Your task to perform on an android device: Open settings Image 0: 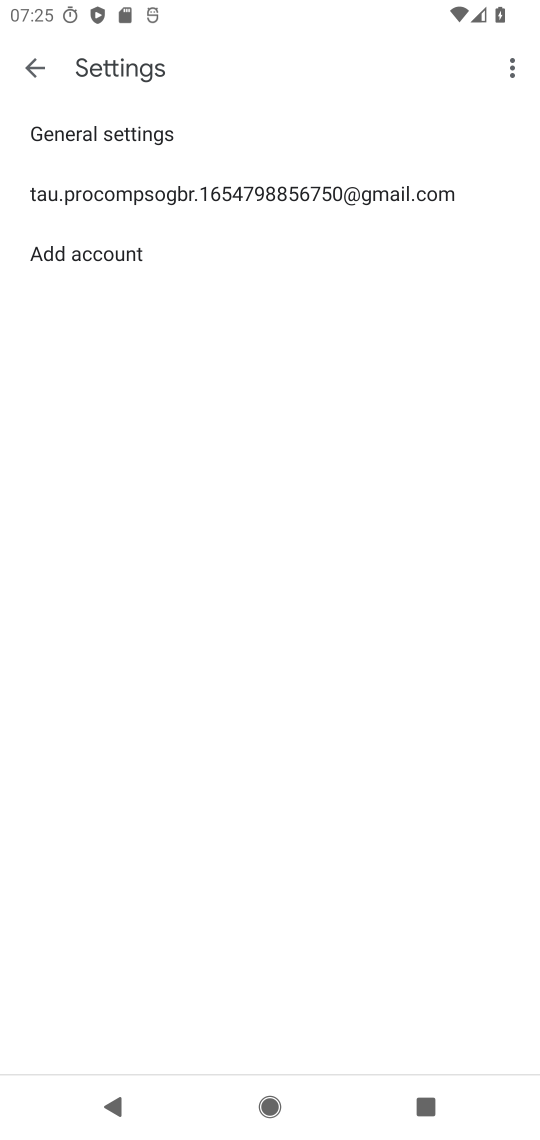
Step 0: press home button
Your task to perform on an android device: Open settings Image 1: 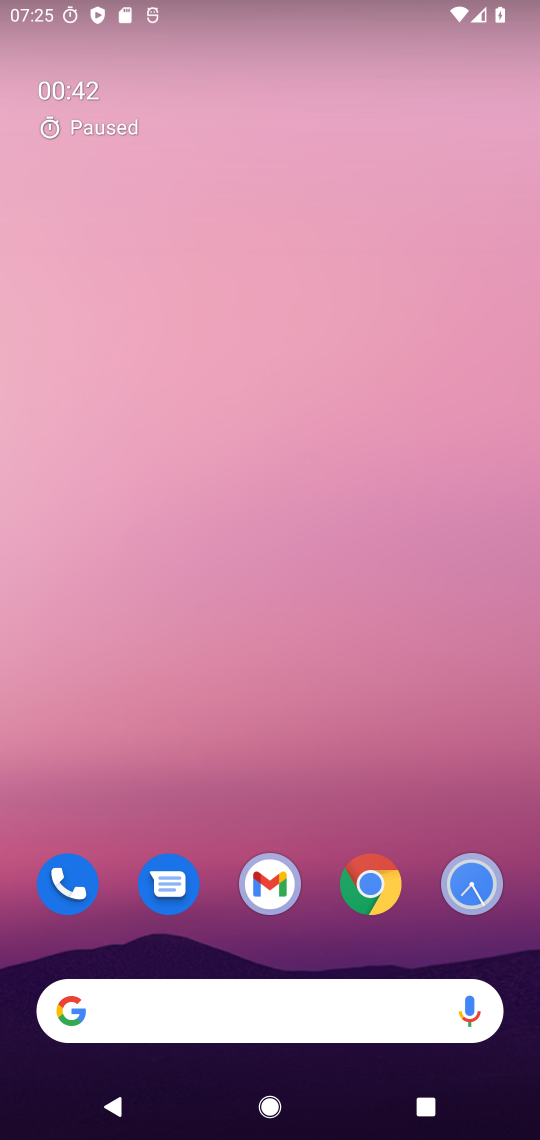
Step 1: drag from (307, 803) to (287, 126)
Your task to perform on an android device: Open settings Image 2: 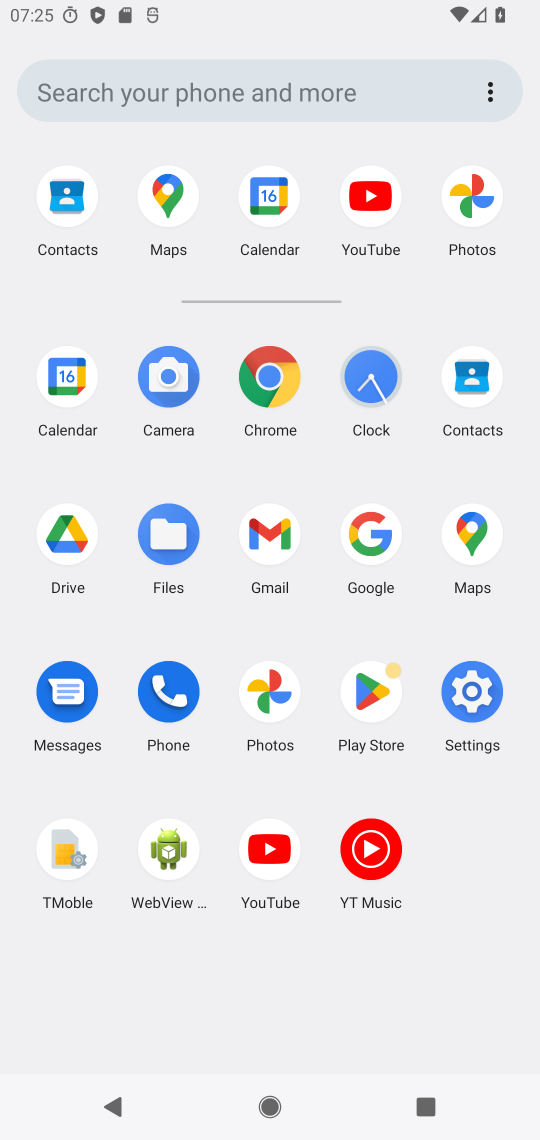
Step 2: click (464, 694)
Your task to perform on an android device: Open settings Image 3: 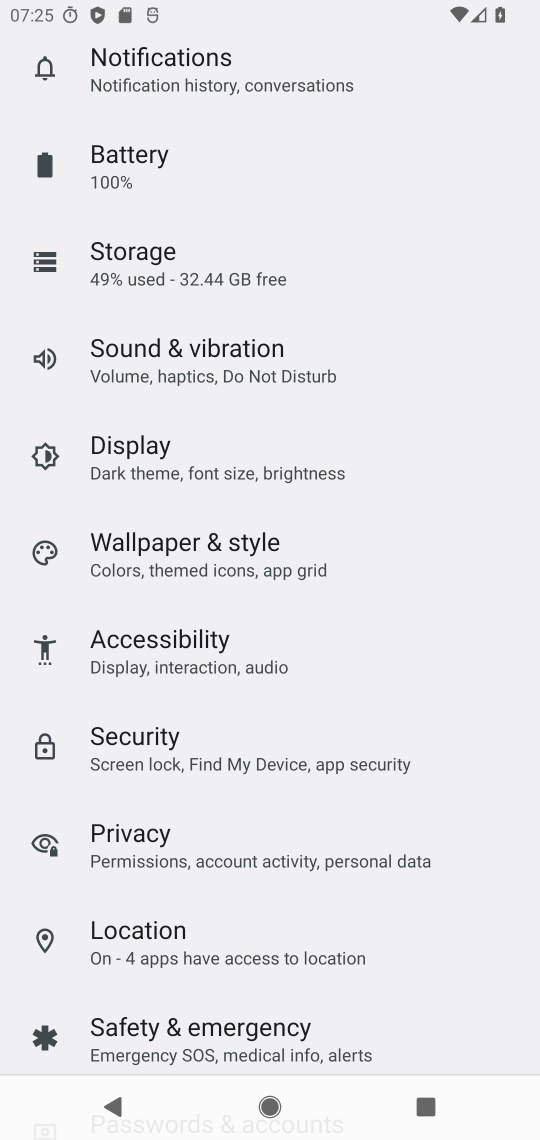
Step 3: task complete